Your task to perform on an android device: turn on data saver in the chrome app Image 0: 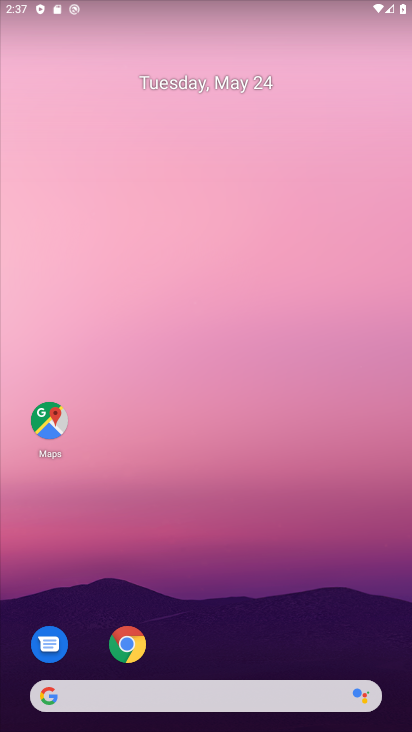
Step 0: drag from (322, 590) to (326, 163)
Your task to perform on an android device: turn on data saver in the chrome app Image 1: 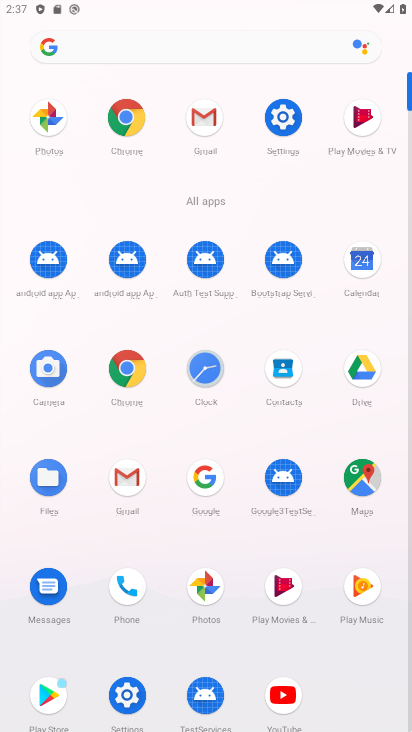
Step 1: click (121, 374)
Your task to perform on an android device: turn on data saver in the chrome app Image 2: 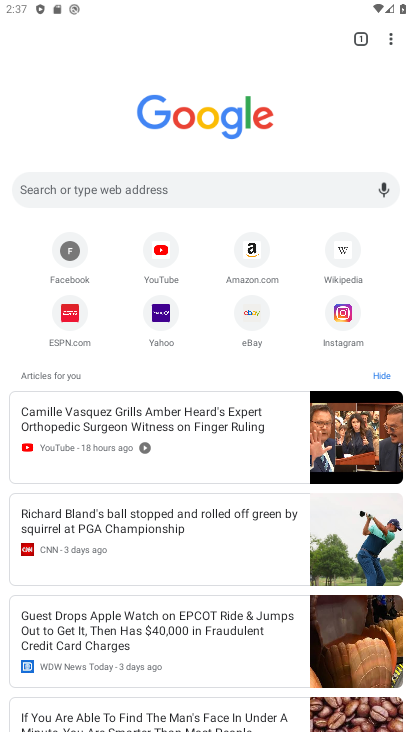
Step 2: drag from (390, 49) to (239, 333)
Your task to perform on an android device: turn on data saver in the chrome app Image 3: 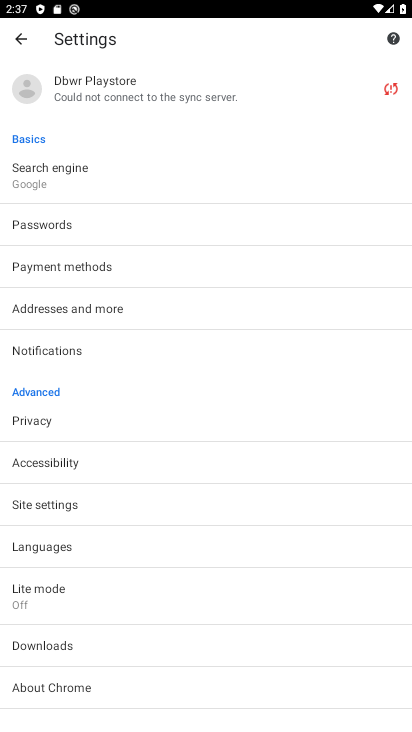
Step 3: drag from (134, 677) to (175, 308)
Your task to perform on an android device: turn on data saver in the chrome app Image 4: 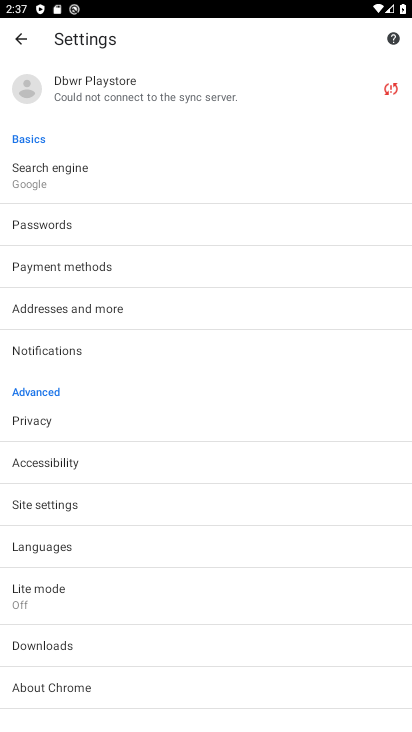
Step 4: click (81, 590)
Your task to perform on an android device: turn on data saver in the chrome app Image 5: 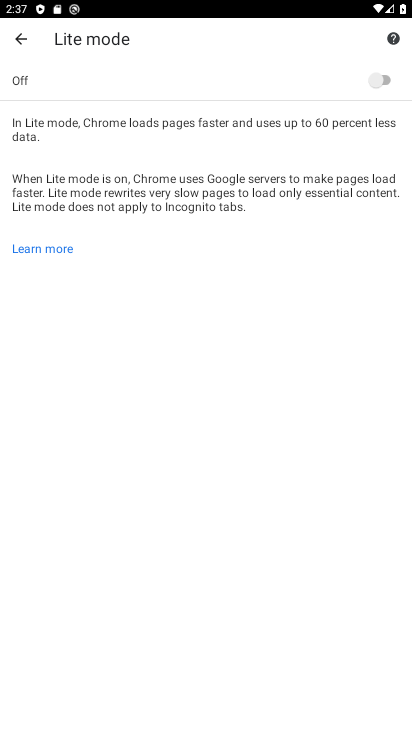
Step 5: click (392, 81)
Your task to perform on an android device: turn on data saver in the chrome app Image 6: 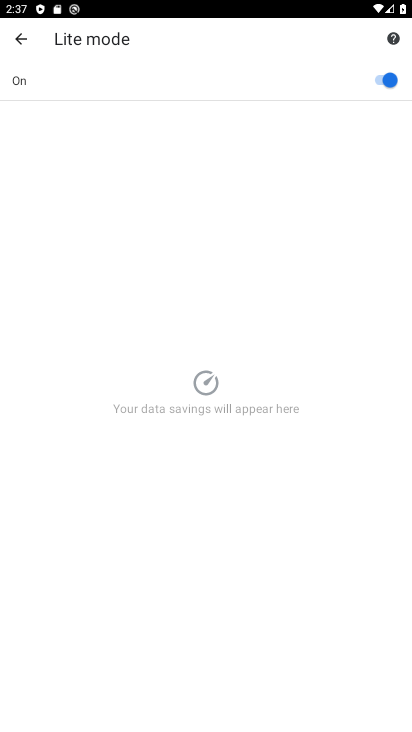
Step 6: task complete